Your task to perform on an android device: Open the calendar app, open the side menu, and click the "Day" option Image 0: 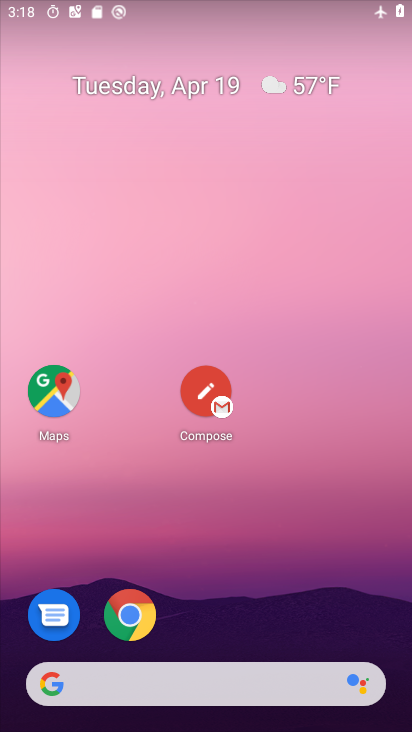
Step 0: drag from (247, 617) to (217, 7)
Your task to perform on an android device: Open the calendar app, open the side menu, and click the "Day" option Image 1: 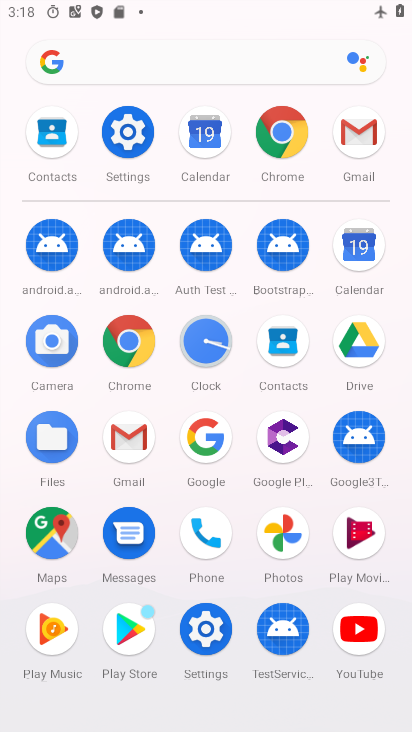
Step 1: click (347, 247)
Your task to perform on an android device: Open the calendar app, open the side menu, and click the "Day" option Image 2: 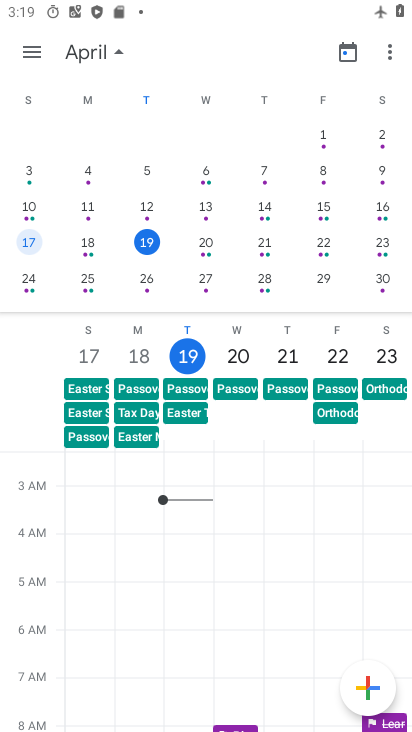
Step 2: click (35, 49)
Your task to perform on an android device: Open the calendar app, open the side menu, and click the "Day" option Image 3: 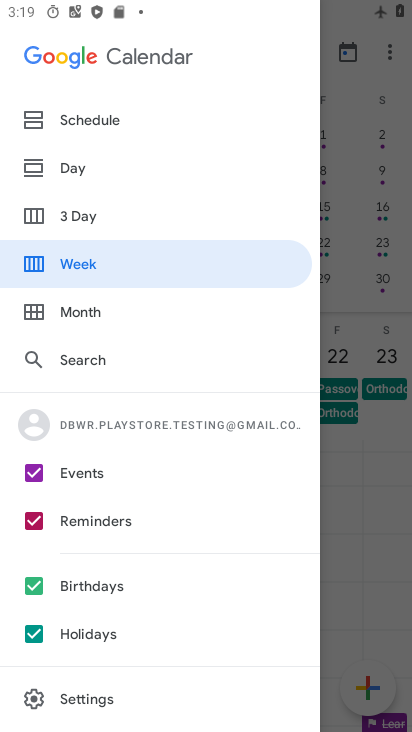
Step 3: click (81, 173)
Your task to perform on an android device: Open the calendar app, open the side menu, and click the "Day" option Image 4: 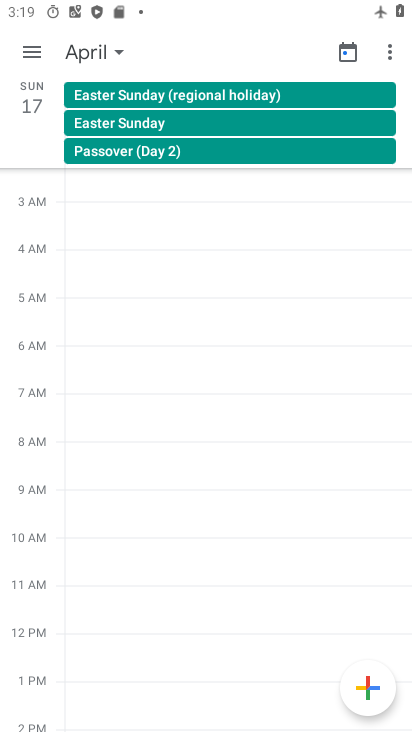
Step 4: task complete